Your task to perform on an android device: What is the news today? Image 0: 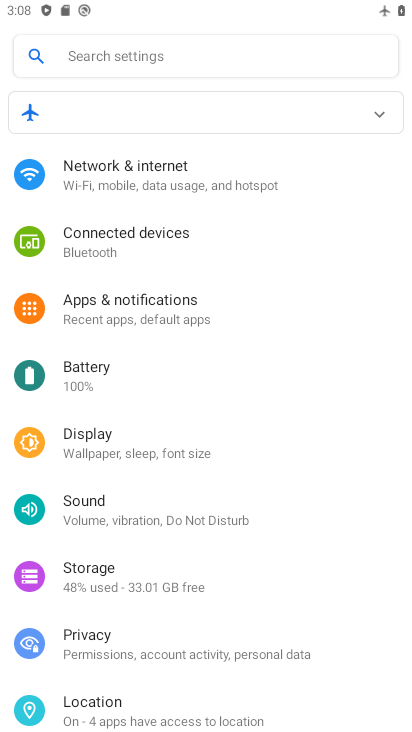
Step 0: press home button
Your task to perform on an android device: What is the news today? Image 1: 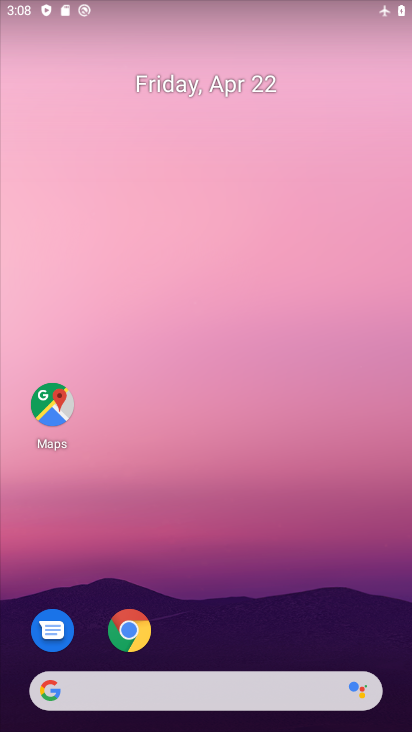
Step 1: click (173, 682)
Your task to perform on an android device: What is the news today? Image 2: 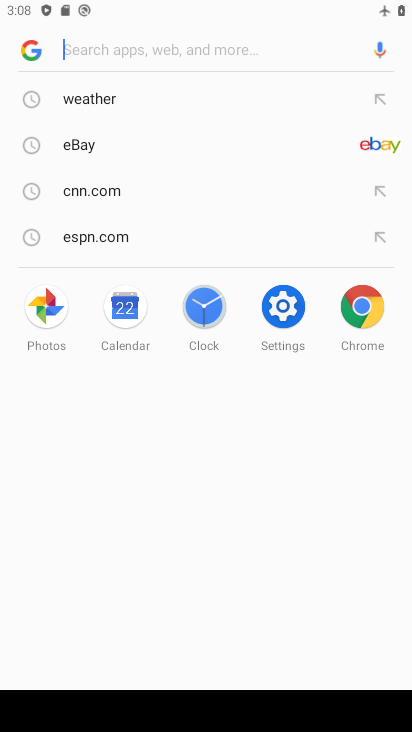
Step 2: type "news today"
Your task to perform on an android device: What is the news today? Image 3: 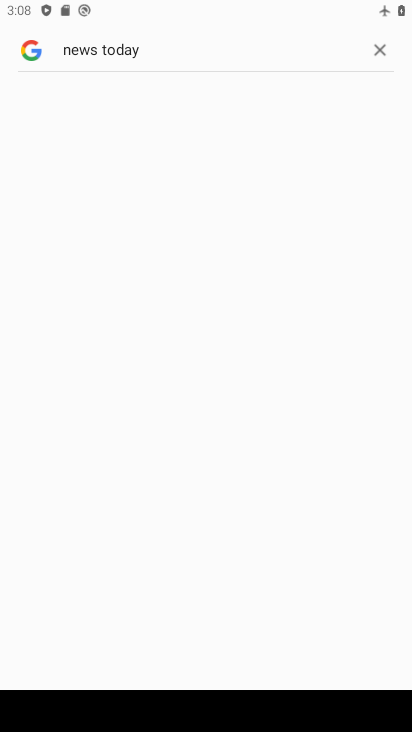
Step 3: task complete